Your task to perform on an android device: Open calendar and show me the second week of next month Image 0: 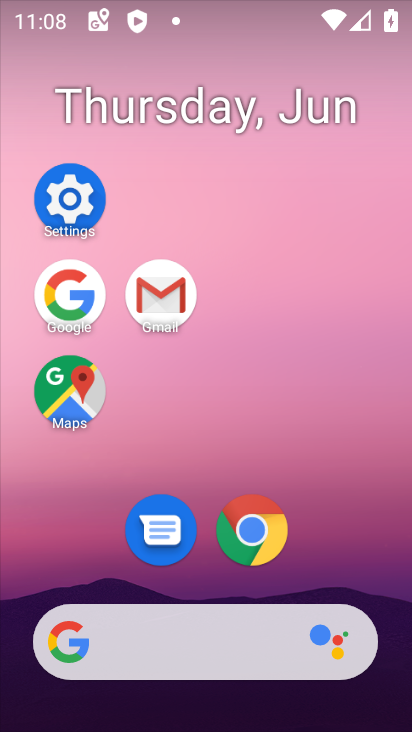
Step 0: drag from (309, 564) to (362, 125)
Your task to perform on an android device: Open calendar and show me the second week of next month Image 1: 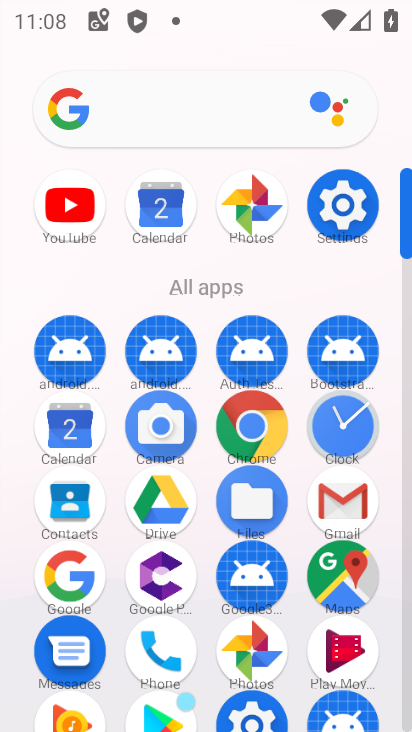
Step 1: drag from (60, 428) to (167, 216)
Your task to perform on an android device: Open calendar and show me the second week of next month Image 2: 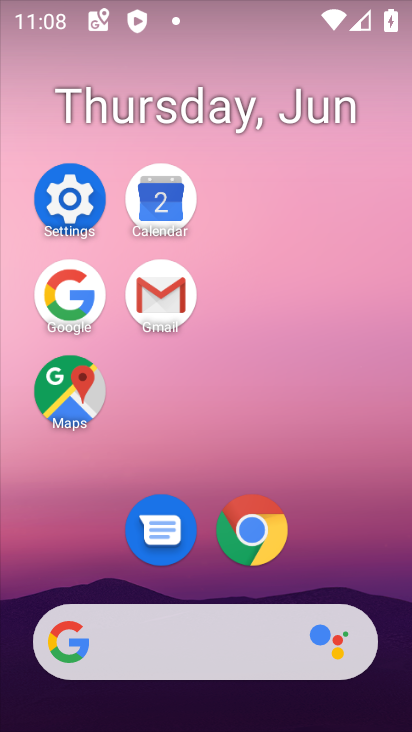
Step 2: click (177, 215)
Your task to perform on an android device: Open calendar and show me the second week of next month Image 3: 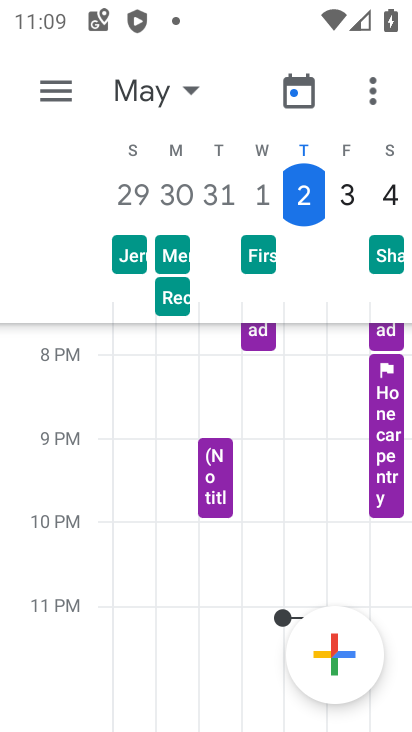
Step 3: click (181, 88)
Your task to perform on an android device: Open calendar and show me the second week of next month Image 4: 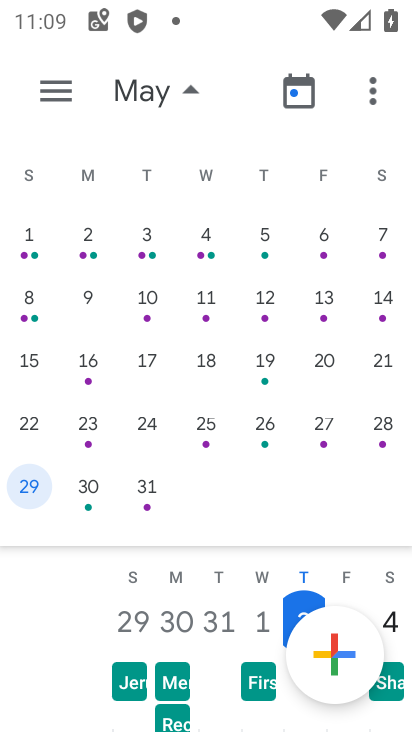
Step 4: drag from (402, 348) to (2, 318)
Your task to perform on an android device: Open calendar and show me the second week of next month Image 5: 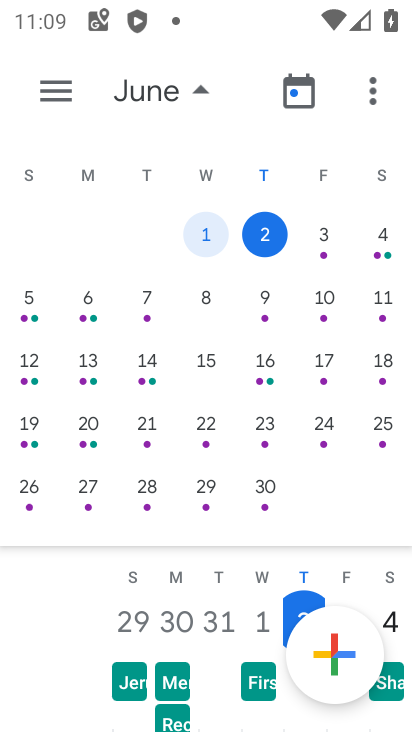
Step 5: drag from (353, 367) to (0, 368)
Your task to perform on an android device: Open calendar and show me the second week of next month Image 6: 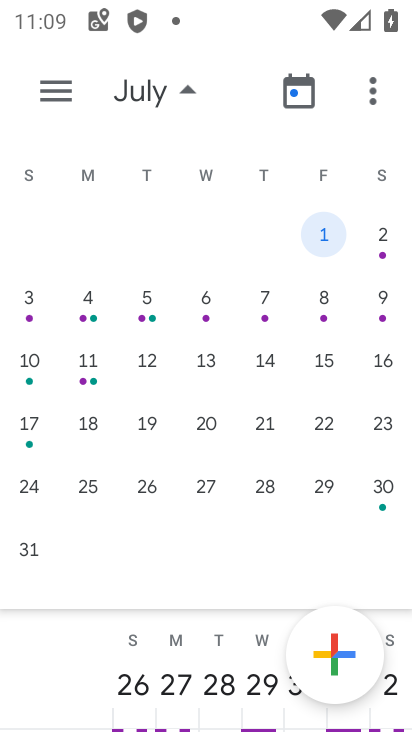
Step 6: drag from (388, 372) to (2, 333)
Your task to perform on an android device: Open calendar and show me the second week of next month Image 7: 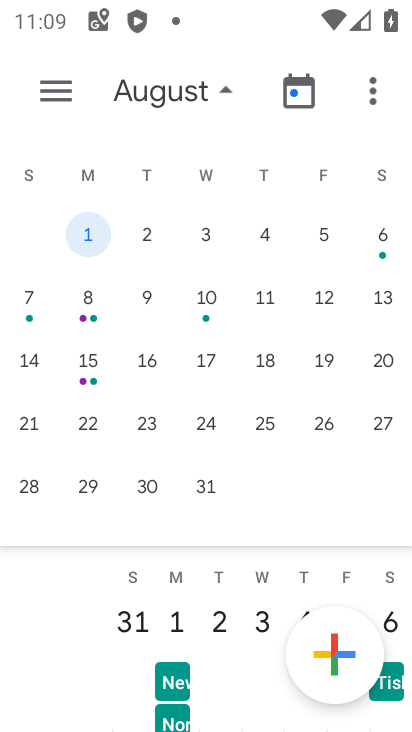
Step 7: click (51, 87)
Your task to perform on an android device: Open calendar and show me the second week of next month Image 8: 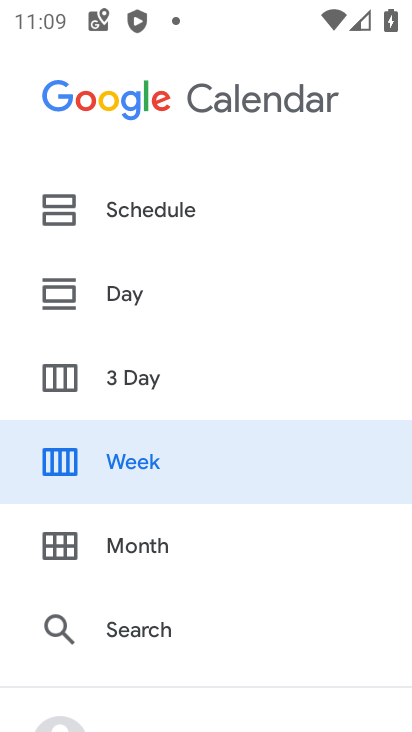
Step 8: press back button
Your task to perform on an android device: Open calendar and show me the second week of next month Image 9: 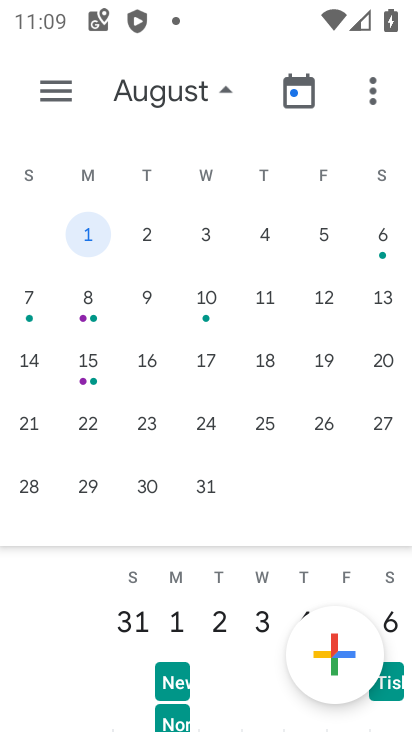
Step 9: drag from (53, 306) to (3, 316)
Your task to perform on an android device: Open calendar and show me the second week of next month Image 10: 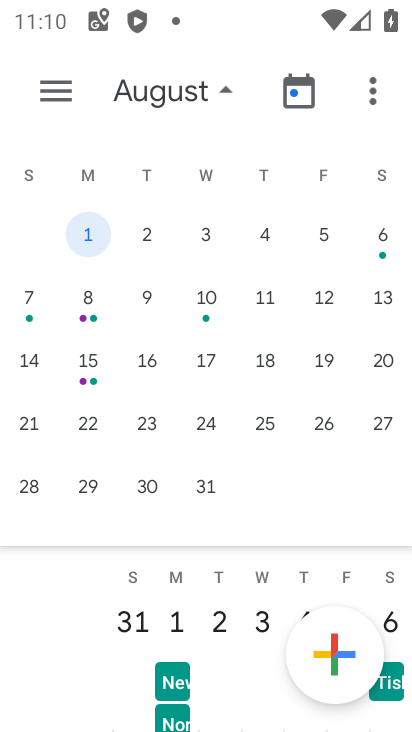
Step 10: drag from (41, 372) to (331, 423)
Your task to perform on an android device: Open calendar and show me the second week of next month Image 11: 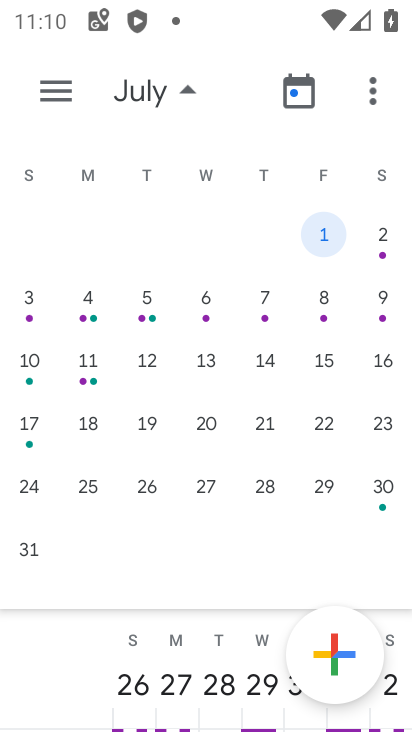
Step 11: click (52, 98)
Your task to perform on an android device: Open calendar and show me the second week of next month Image 12: 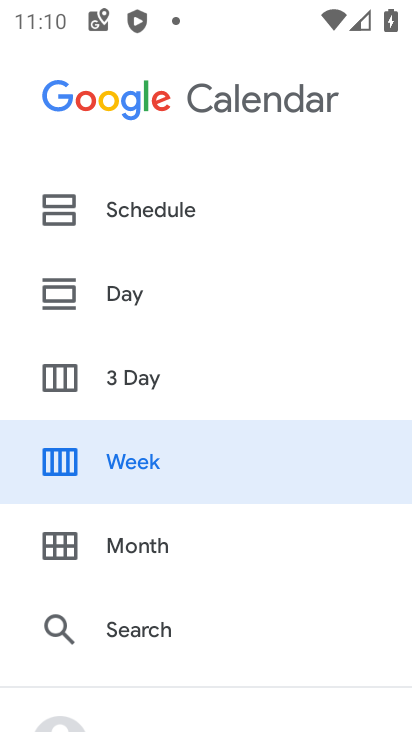
Step 12: click (160, 477)
Your task to perform on an android device: Open calendar and show me the second week of next month Image 13: 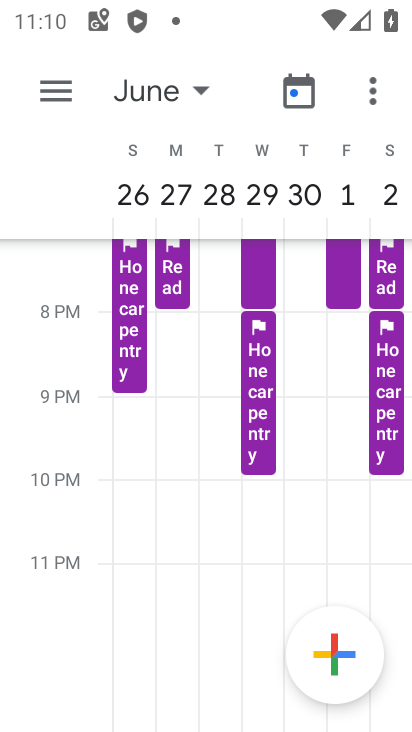
Step 13: task complete